Your task to perform on an android device: change keyboard looks Image 0: 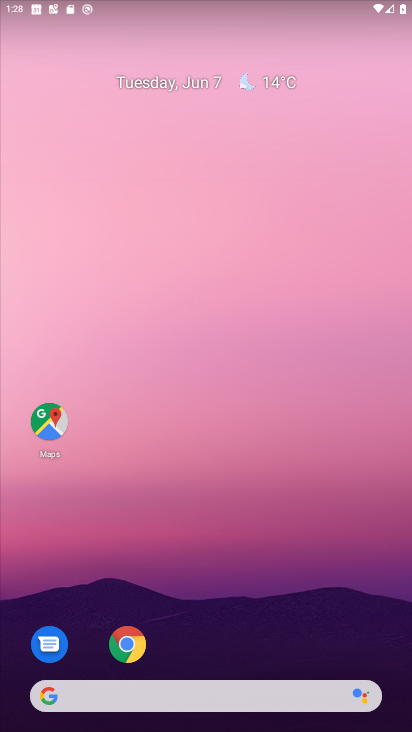
Step 0: drag from (252, 639) to (237, 8)
Your task to perform on an android device: change keyboard looks Image 1: 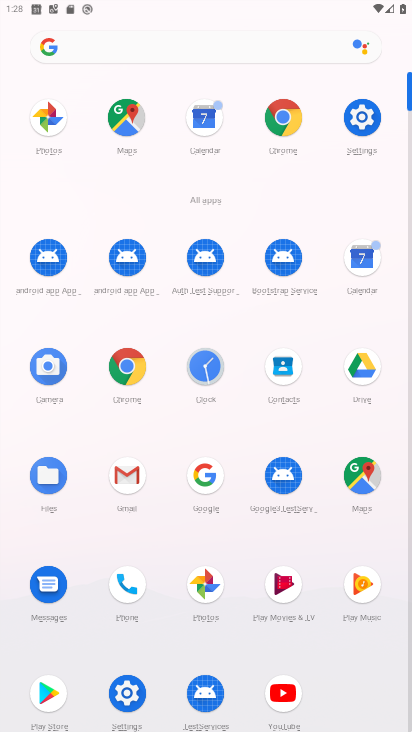
Step 1: click (358, 130)
Your task to perform on an android device: change keyboard looks Image 2: 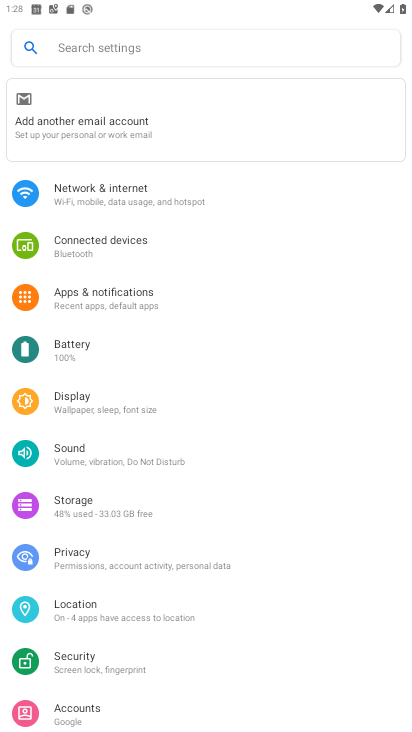
Step 2: drag from (149, 634) to (127, 22)
Your task to perform on an android device: change keyboard looks Image 3: 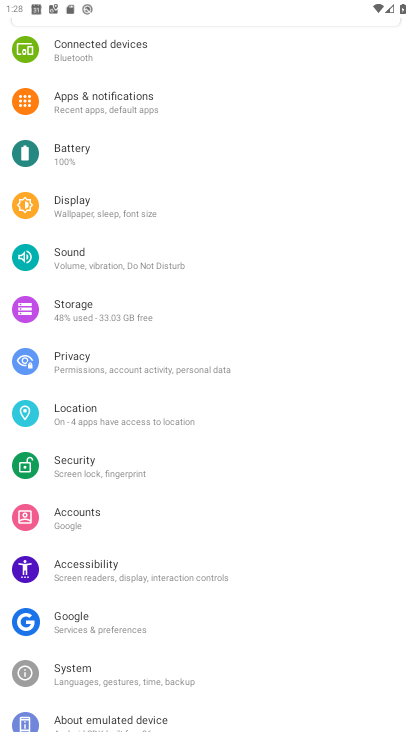
Step 3: click (128, 677)
Your task to perform on an android device: change keyboard looks Image 4: 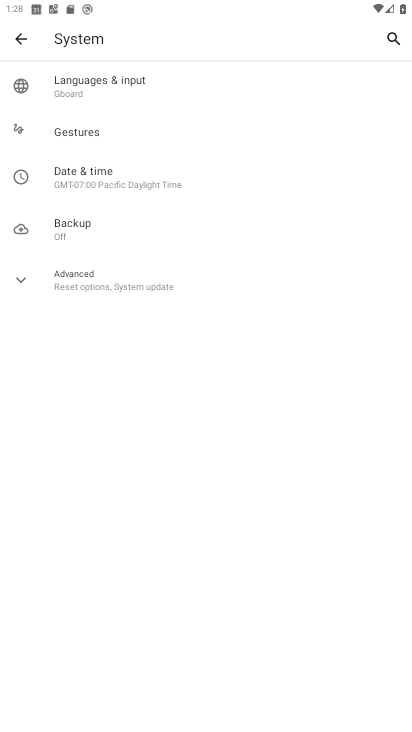
Step 4: click (119, 93)
Your task to perform on an android device: change keyboard looks Image 5: 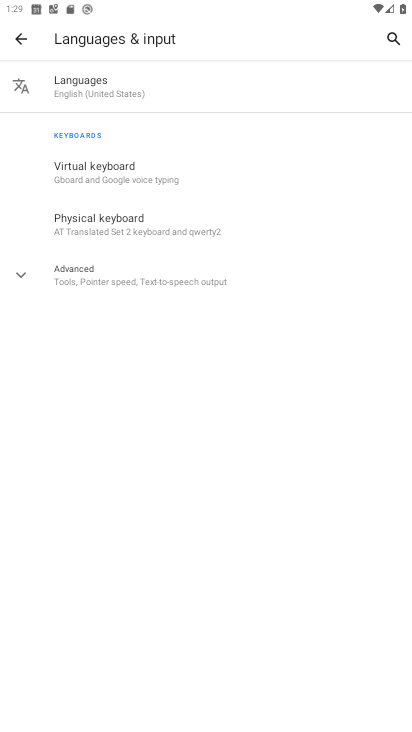
Step 5: click (57, 169)
Your task to perform on an android device: change keyboard looks Image 6: 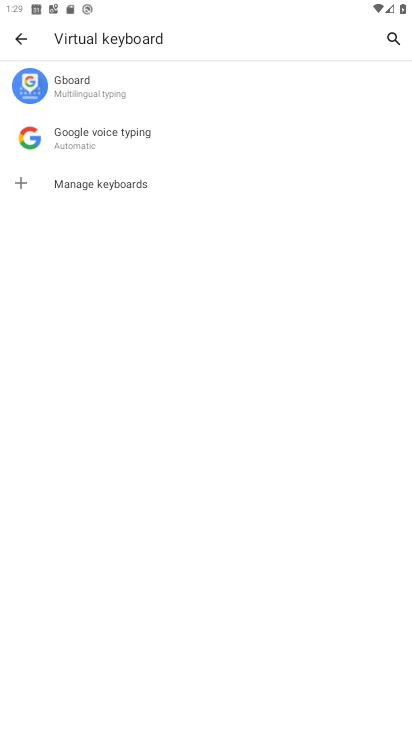
Step 6: click (106, 90)
Your task to perform on an android device: change keyboard looks Image 7: 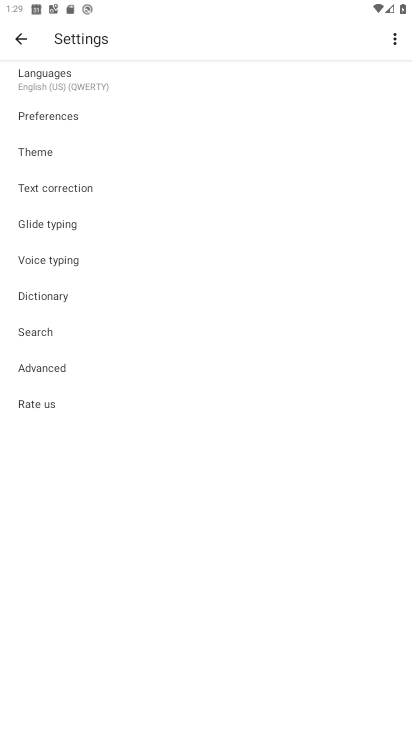
Step 7: click (58, 158)
Your task to perform on an android device: change keyboard looks Image 8: 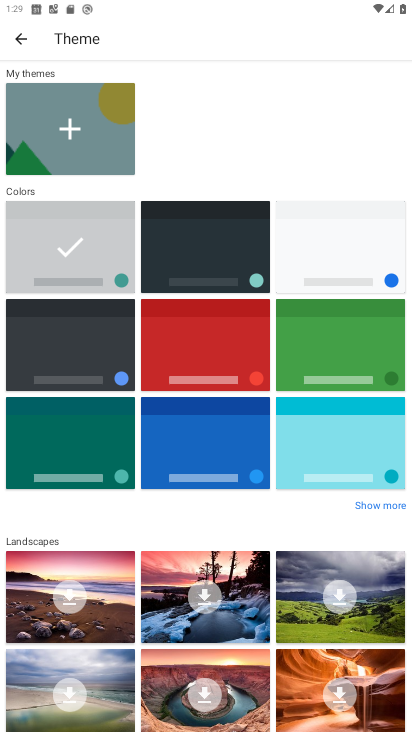
Step 8: click (210, 235)
Your task to perform on an android device: change keyboard looks Image 9: 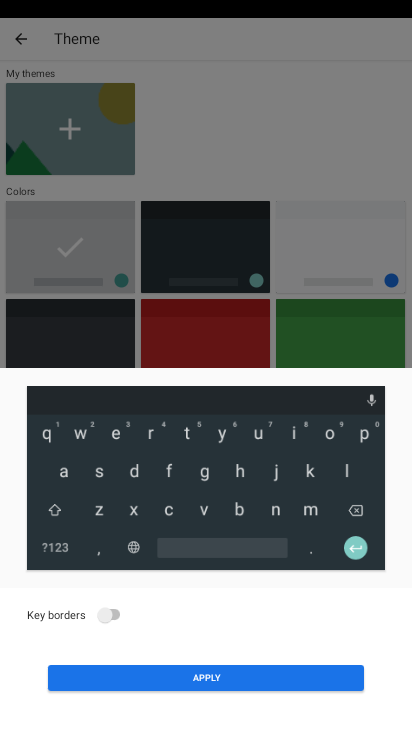
Step 9: click (223, 675)
Your task to perform on an android device: change keyboard looks Image 10: 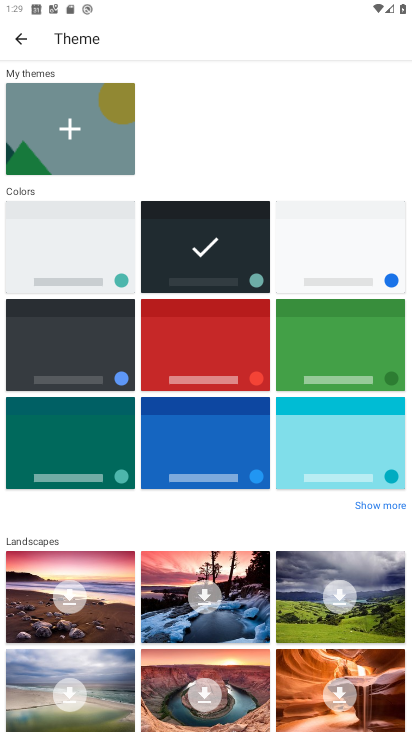
Step 10: task complete